Your task to perform on an android device: Open Youtube and go to the subscriptions tab Image 0: 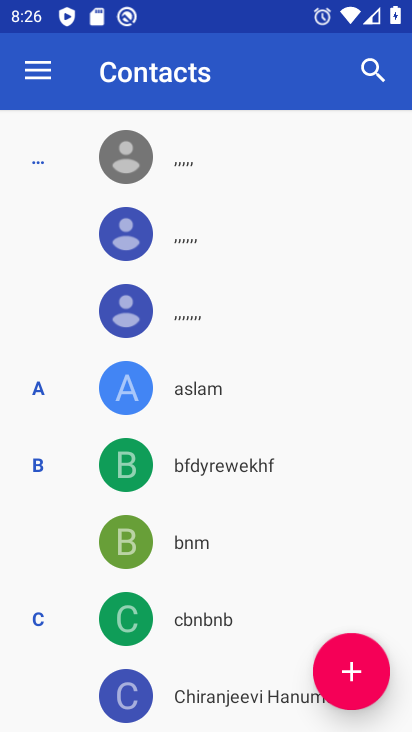
Step 0: press home button
Your task to perform on an android device: Open Youtube and go to the subscriptions tab Image 1: 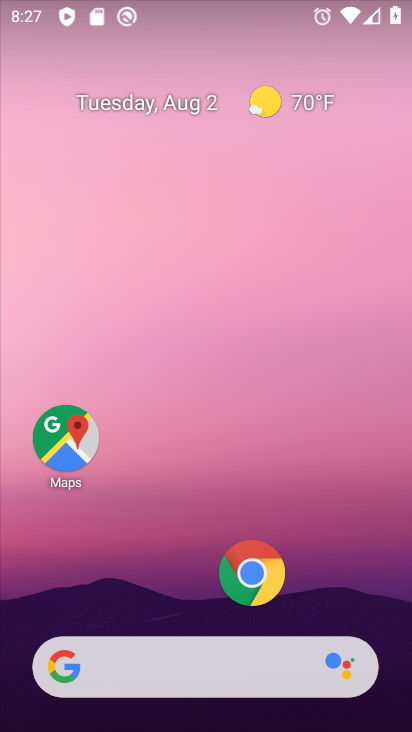
Step 1: drag from (187, 616) to (179, 59)
Your task to perform on an android device: Open Youtube and go to the subscriptions tab Image 2: 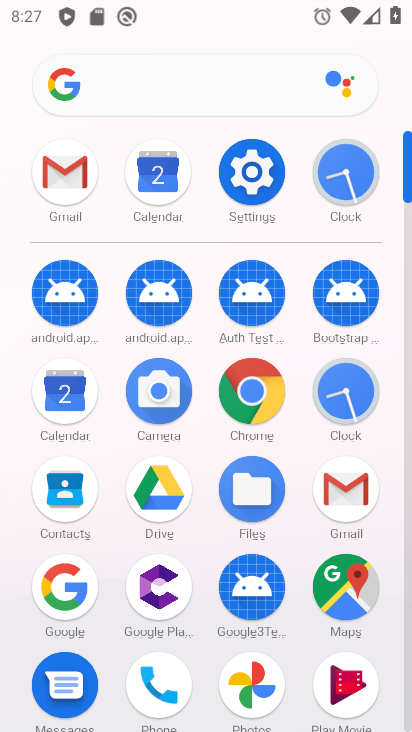
Step 2: drag from (202, 620) to (203, 69)
Your task to perform on an android device: Open Youtube and go to the subscriptions tab Image 3: 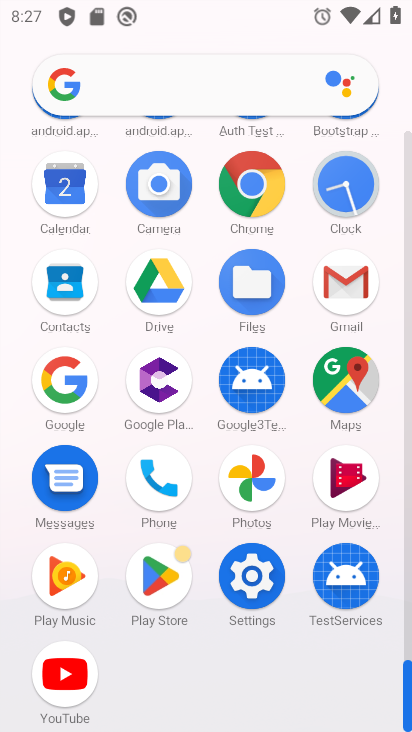
Step 3: click (64, 665)
Your task to perform on an android device: Open Youtube and go to the subscriptions tab Image 4: 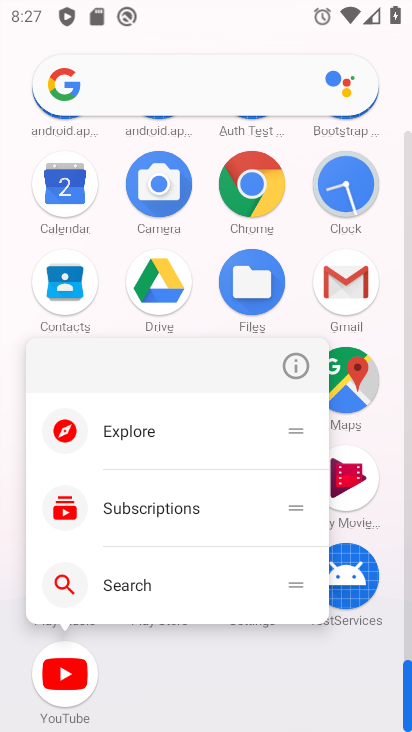
Step 4: click (61, 667)
Your task to perform on an android device: Open Youtube and go to the subscriptions tab Image 5: 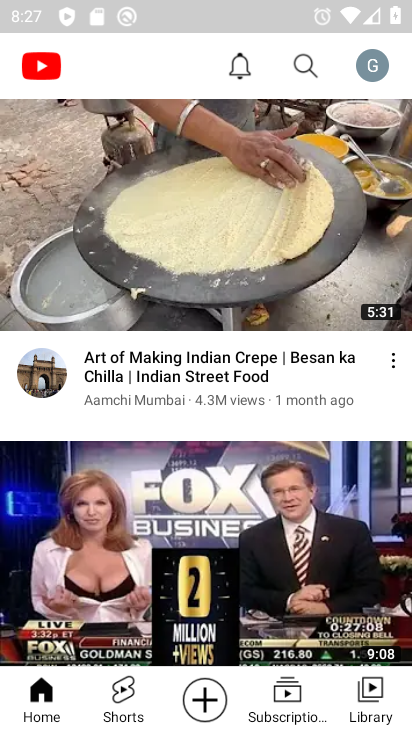
Step 5: click (286, 689)
Your task to perform on an android device: Open Youtube and go to the subscriptions tab Image 6: 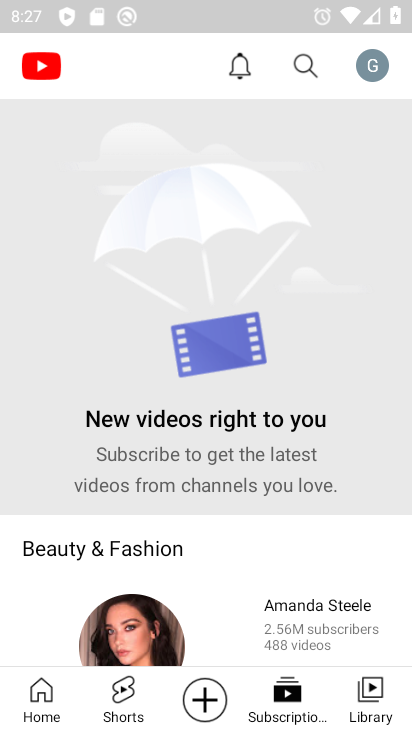
Step 6: task complete